Your task to perform on an android device: check android version Image 0: 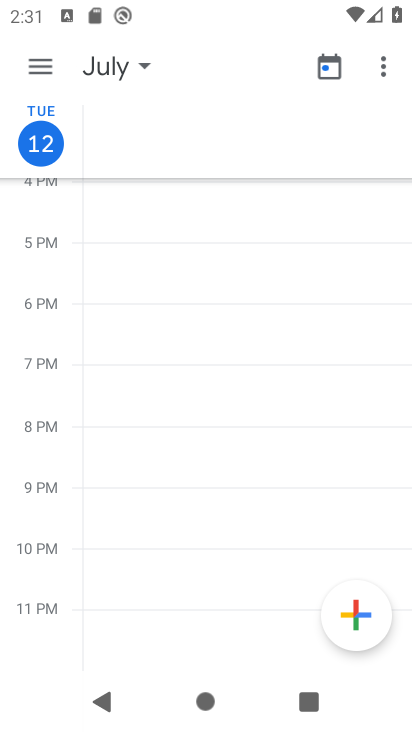
Step 0: press home button
Your task to perform on an android device: check android version Image 1: 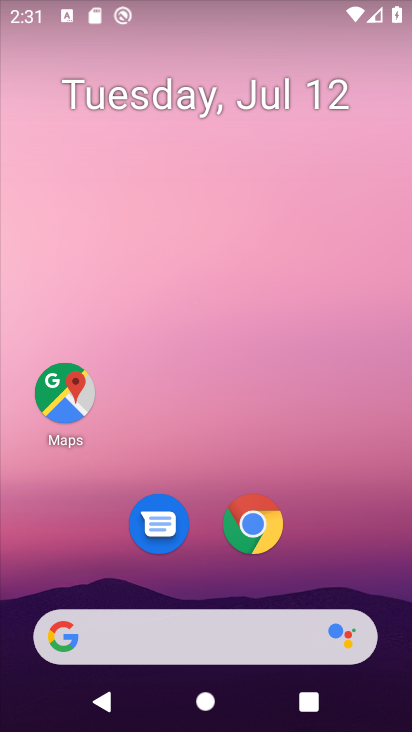
Step 1: drag from (321, 526) to (264, 35)
Your task to perform on an android device: check android version Image 2: 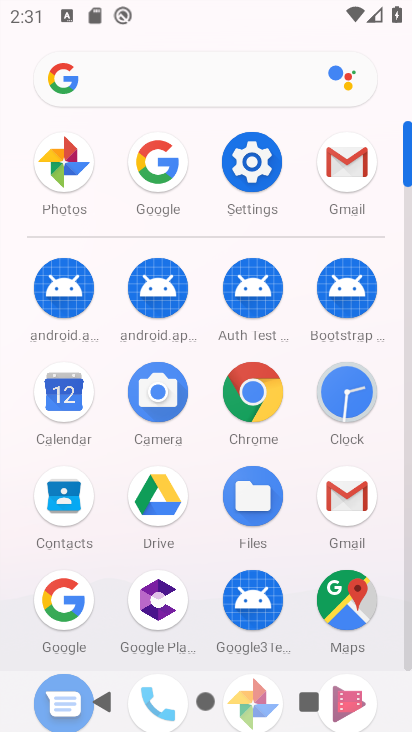
Step 2: click (252, 167)
Your task to perform on an android device: check android version Image 3: 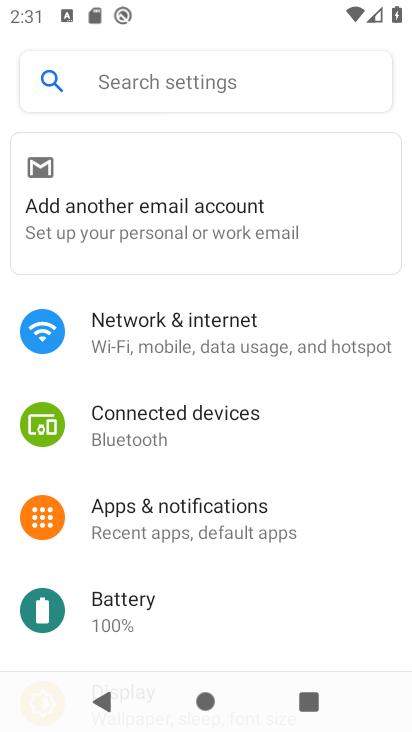
Step 3: drag from (207, 581) to (231, 29)
Your task to perform on an android device: check android version Image 4: 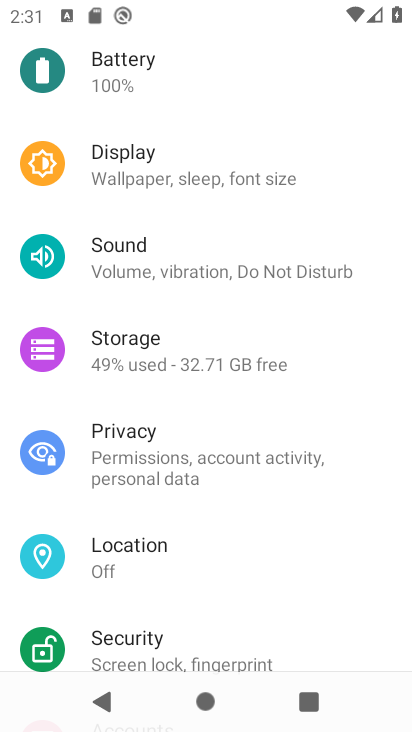
Step 4: drag from (240, 501) to (250, 5)
Your task to perform on an android device: check android version Image 5: 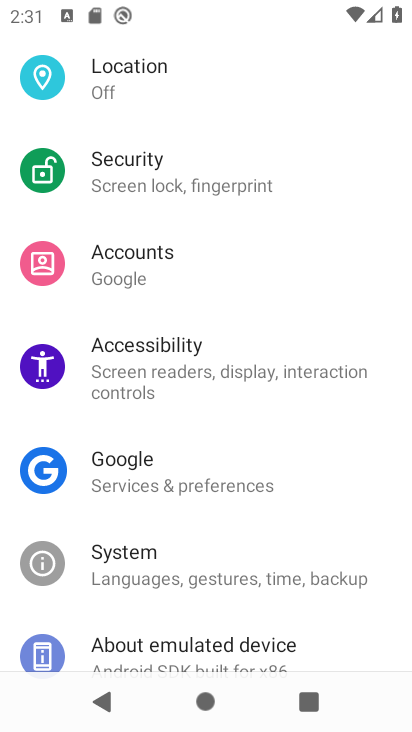
Step 5: click (216, 640)
Your task to perform on an android device: check android version Image 6: 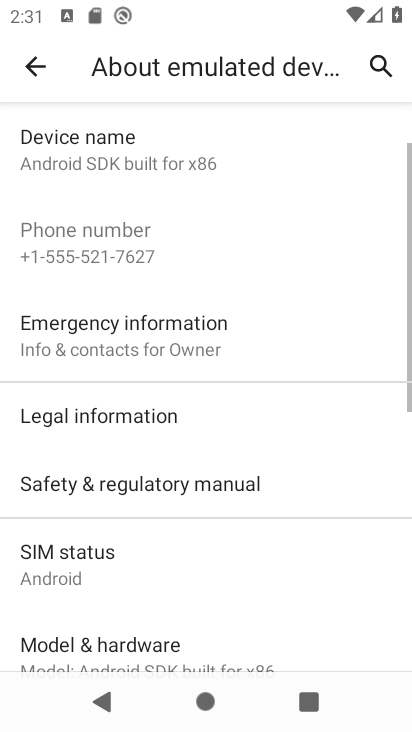
Step 6: drag from (238, 583) to (233, 228)
Your task to perform on an android device: check android version Image 7: 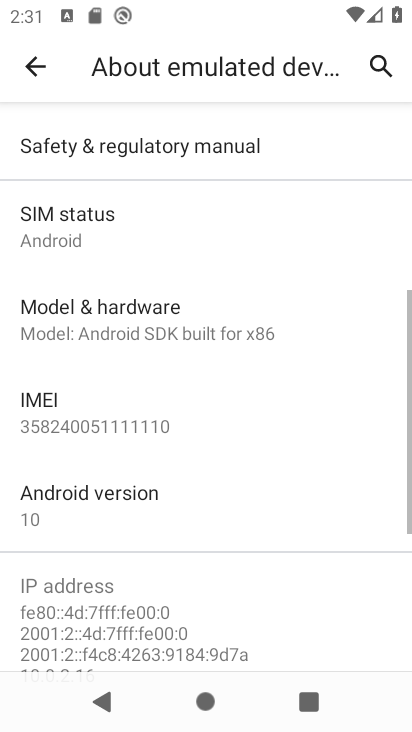
Step 7: click (165, 515)
Your task to perform on an android device: check android version Image 8: 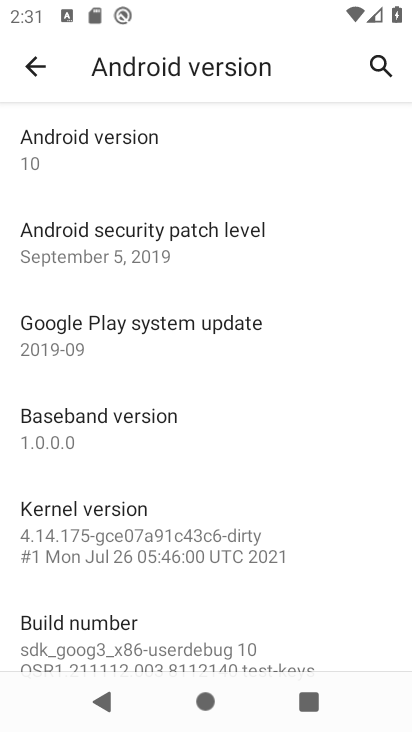
Step 8: task complete